Your task to perform on an android device: Set the phone to "Do not disturb". Image 0: 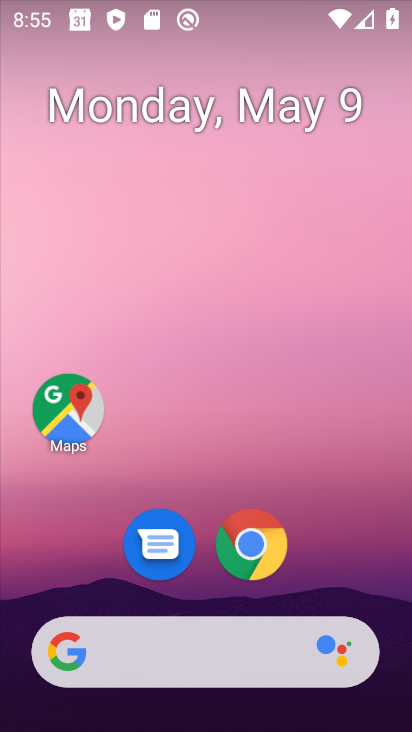
Step 0: drag from (309, 531) to (251, 1)
Your task to perform on an android device: Set the phone to "Do not disturb". Image 1: 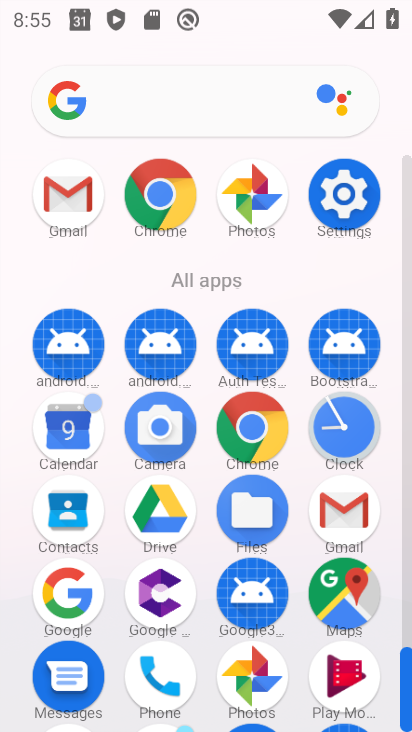
Step 1: click (334, 206)
Your task to perform on an android device: Set the phone to "Do not disturb". Image 2: 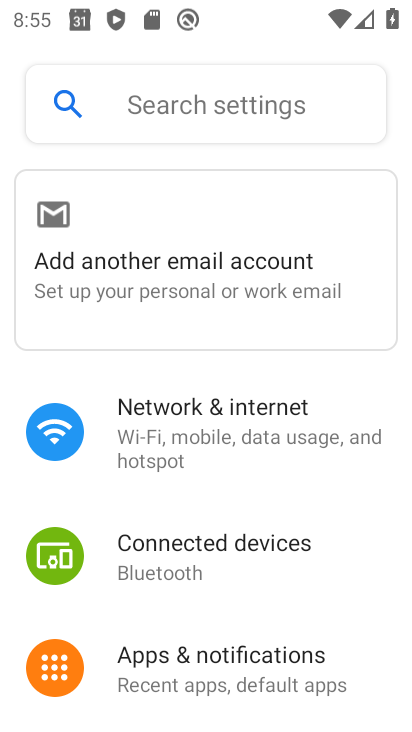
Step 2: drag from (208, 602) to (212, 341)
Your task to perform on an android device: Set the phone to "Do not disturb". Image 3: 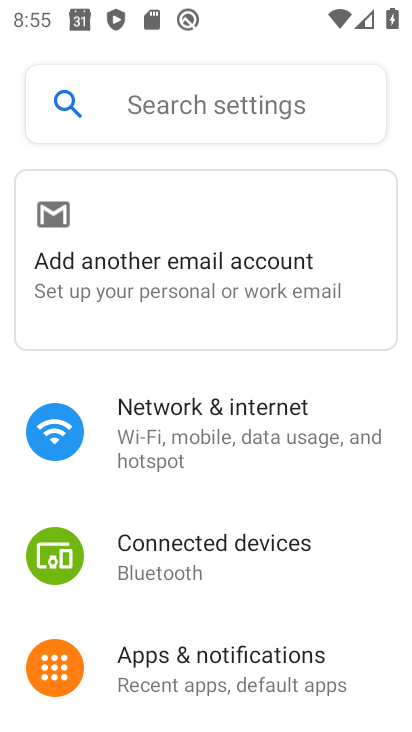
Step 3: drag from (147, 597) to (145, 281)
Your task to perform on an android device: Set the phone to "Do not disturb". Image 4: 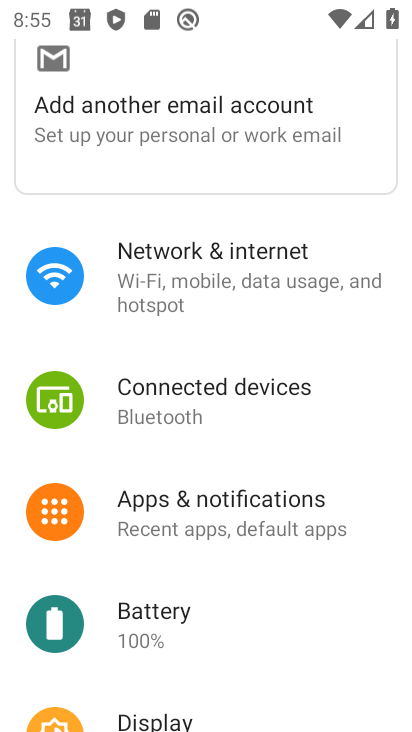
Step 4: drag from (210, 574) to (171, 303)
Your task to perform on an android device: Set the phone to "Do not disturb". Image 5: 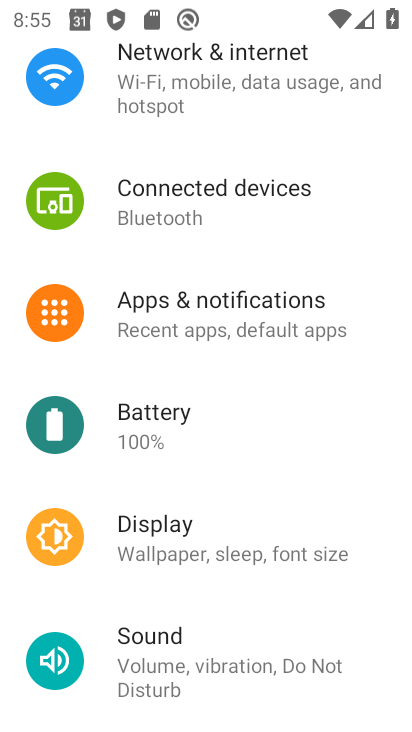
Step 5: click (141, 638)
Your task to perform on an android device: Set the phone to "Do not disturb". Image 6: 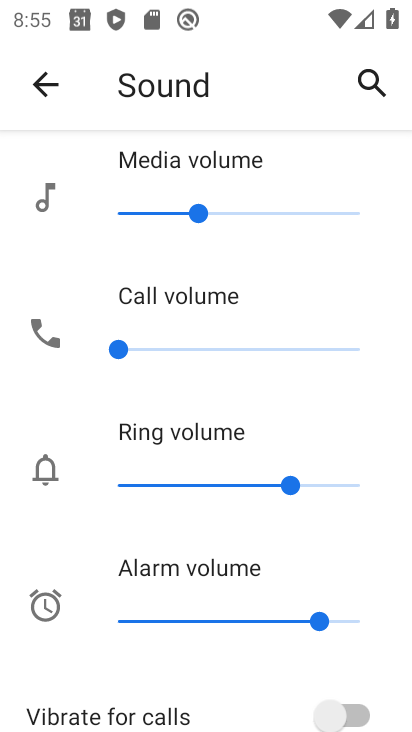
Step 6: drag from (191, 632) to (139, 209)
Your task to perform on an android device: Set the phone to "Do not disturb". Image 7: 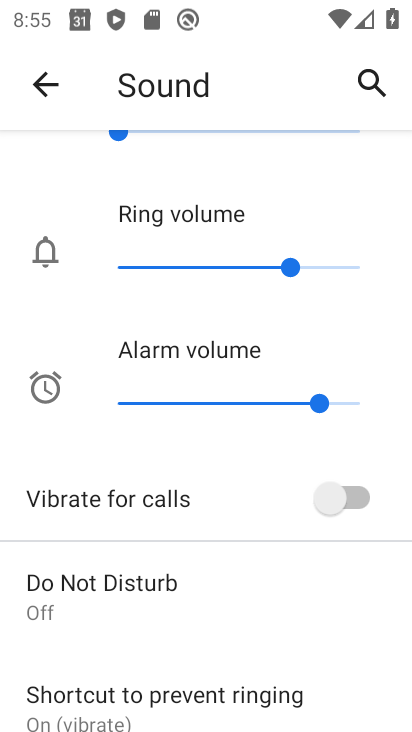
Step 7: click (80, 592)
Your task to perform on an android device: Set the phone to "Do not disturb". Image 8: 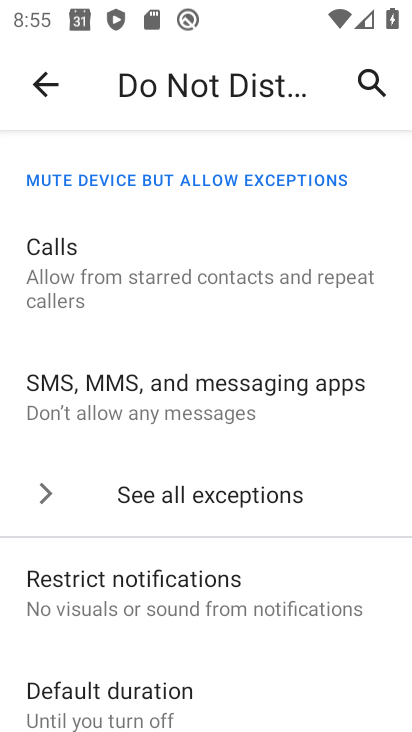
Step 8: drag from (203, 516) to (188, 125)
Your task to perform on an android device: Set the phone to "Do not disturb". Image 9: 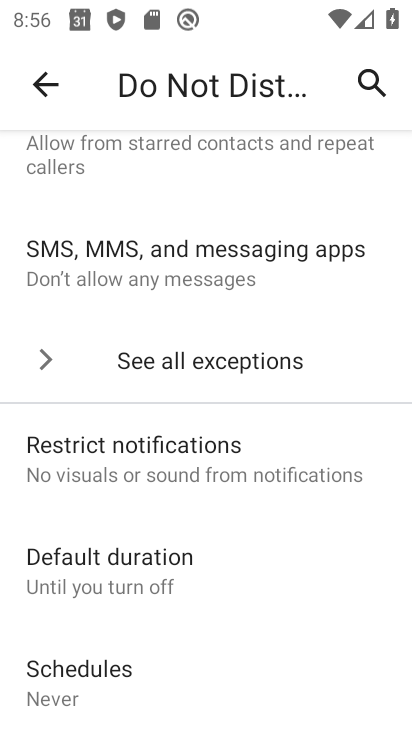
Step 9: drag from (165, 617) to (161, 252)
Your task to perform on an android device: Set the phone to "Do not disturb". Image 10: 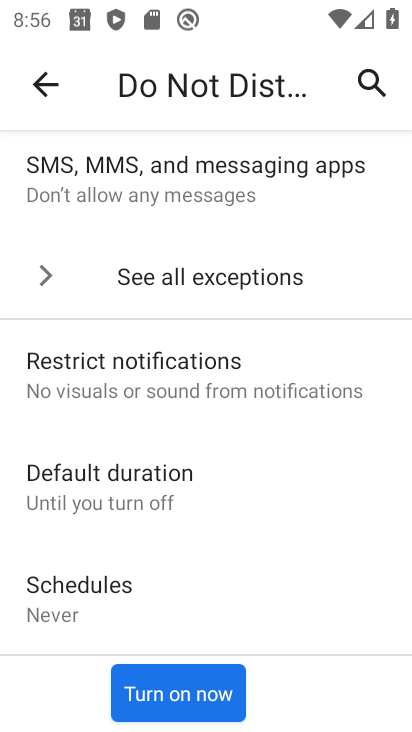
Step 10: click (174, 714)
Your task to perform on an android device: Set the phone to "Do not disturb". Image 11: 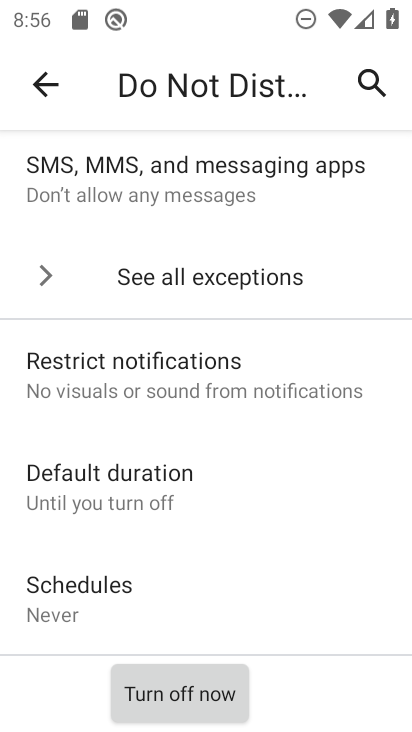
Step 11: task complete